Your task to perform on an android device: Open Maps and search for coffee Image 0: 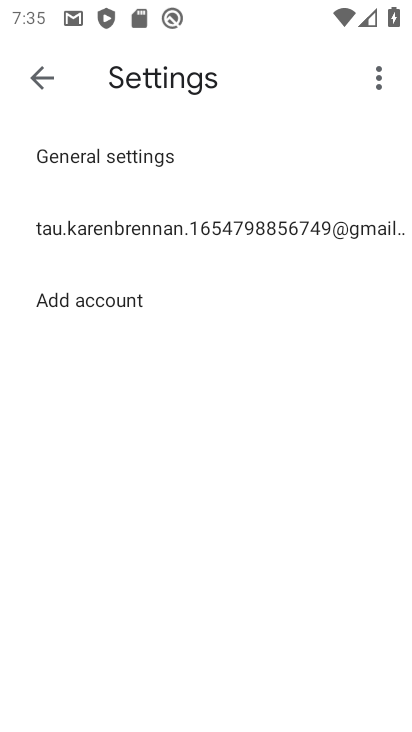
Step 0: press home button
Your task to perform on an android device: Open Maps and search for coffee Image 1: 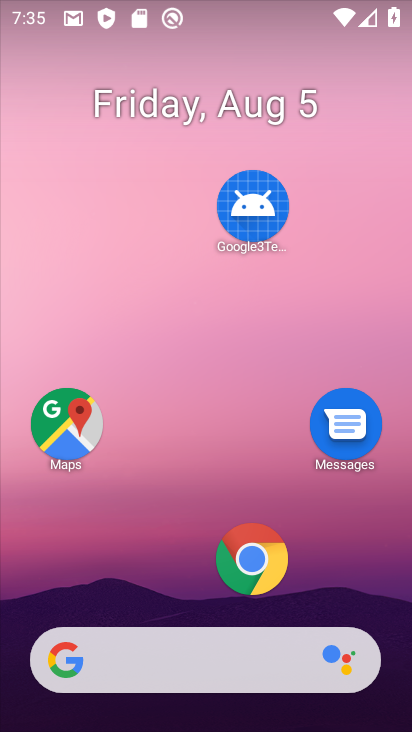
Step 1: click (68, 400)
Your task to perform on an android device: Open Maps and search for coffee Image 2: 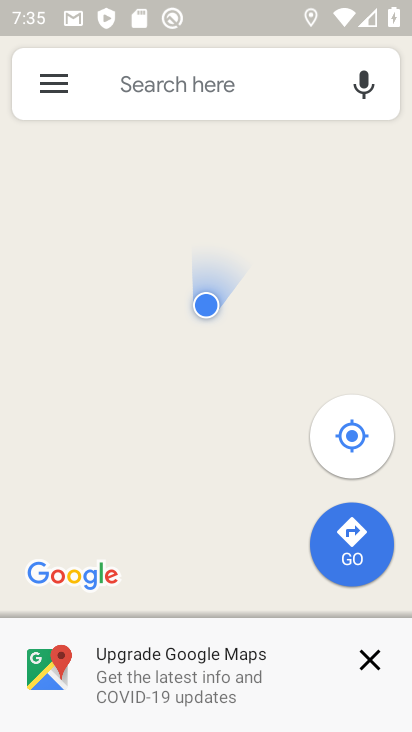
Step 2: click (175, 56)
Your task to perform on an android device: Open Maps and search for coffee Image 3: 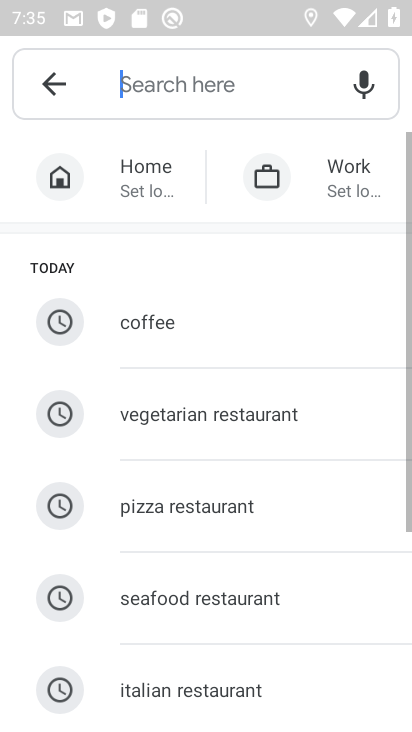
Step 3: click (140, 327)
Your task to perform on an android device: Open Maps and search for coffee Image 4: 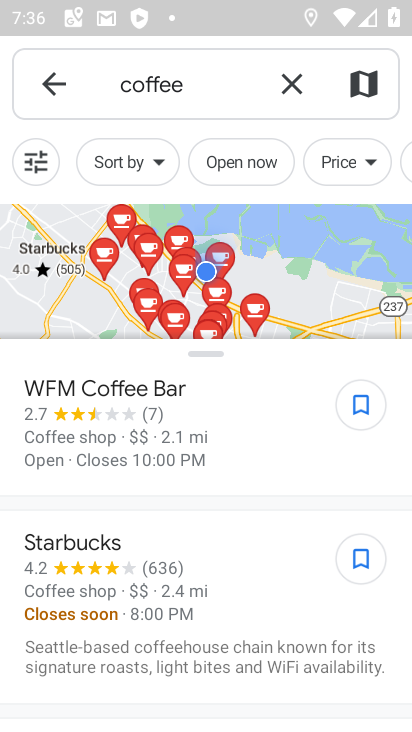
Step 4: task complete